Your task to perform on an android device: empty trash in google photos Image 0: 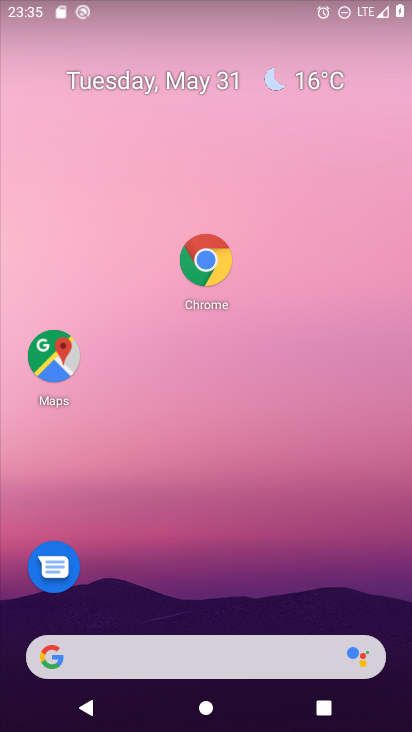
Step 0: drag from (261, 625) to (261, 339)
Your task to perform on an android device: empty trash in google photos Image 1: 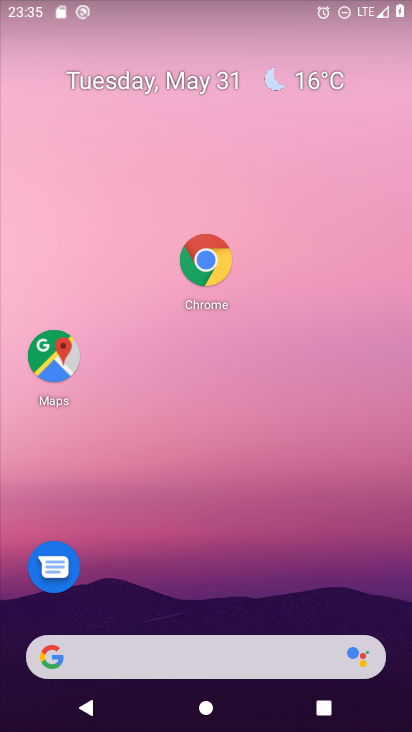
Step 1: drag from (243, 629) to (233, 259)
Your task to perform on an android device: empty trash in google photos Image 2: 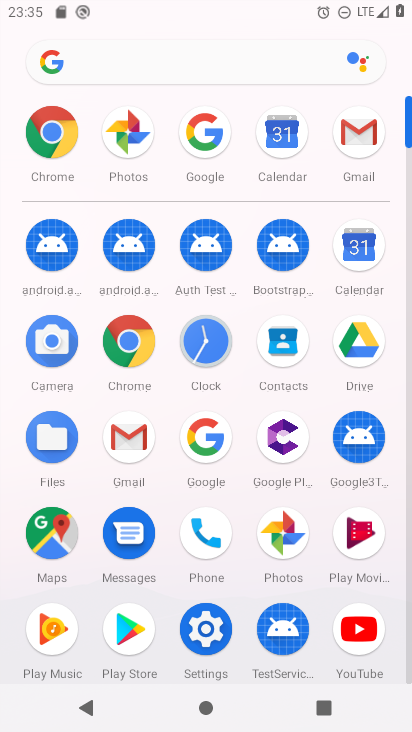
Step 2: click (267, 540)
Your task to perform on an android device: empty trash in google photos Image 3: 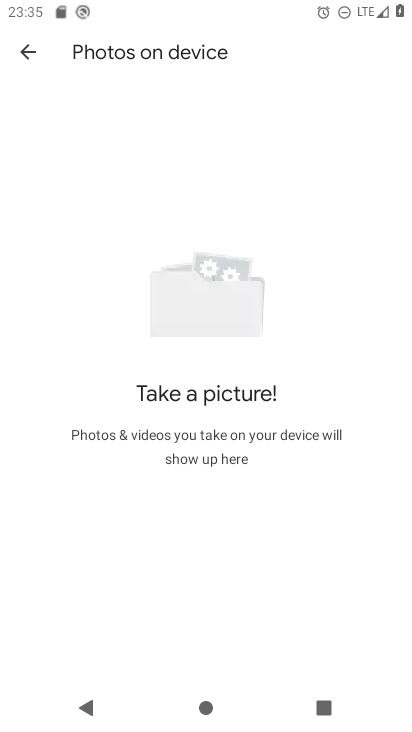
Step 3: click (27, 48)
Your task to perform on an android device: empty trash in google photos Image 4: 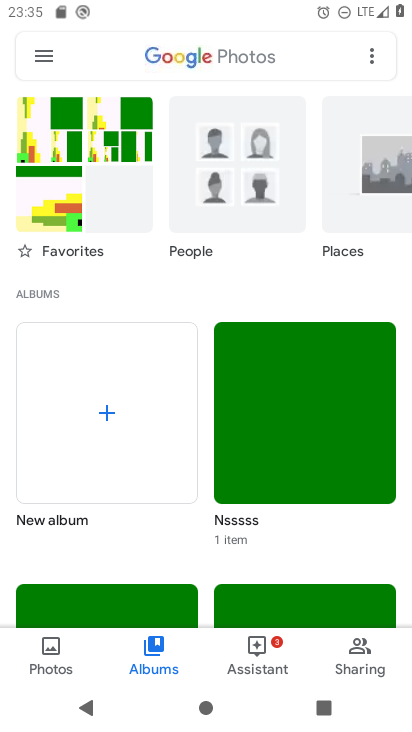
Step 4: click (40, 59)
Your task to perform on an android device: empty trash in google photos Image 5: 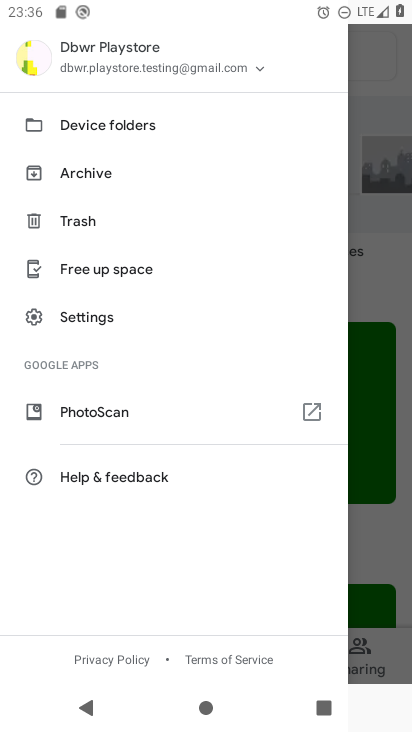
Step 5: click (77, 221)
Your task to perform on an android device: empty trash in google photos Image 6: 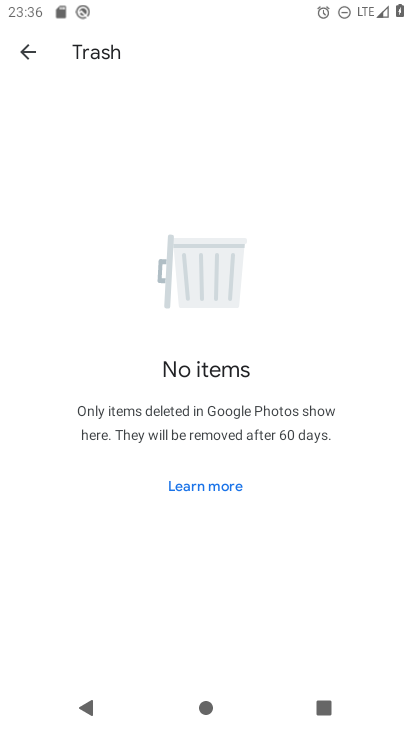
Step 6: task complete